Your task to perform on an android device: Open calendar and show me the first week of next month Image 0: 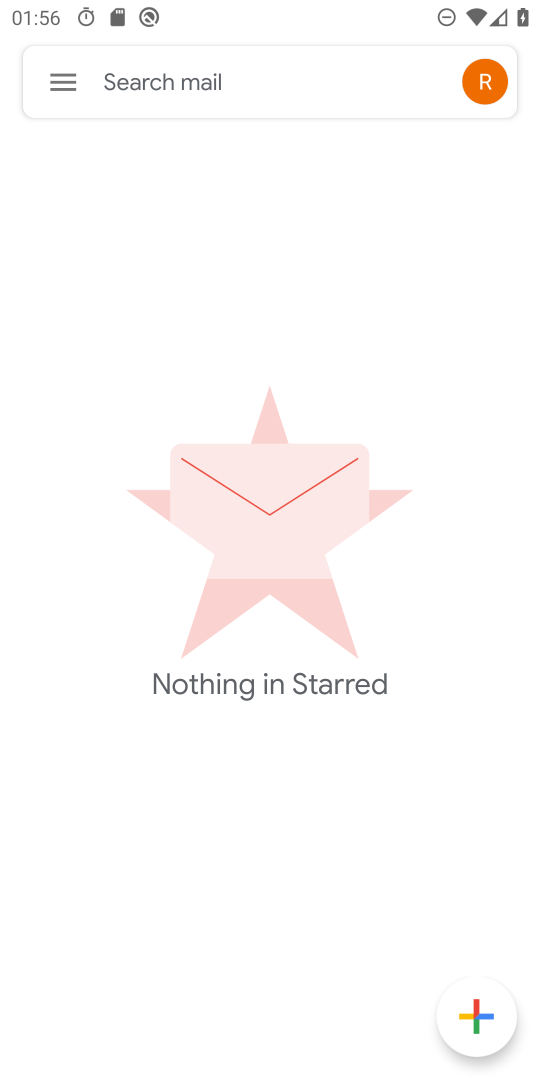
Step 0: press home button
Your task to perform on an android device: Open calendar and show me the first week of next month Image 1: 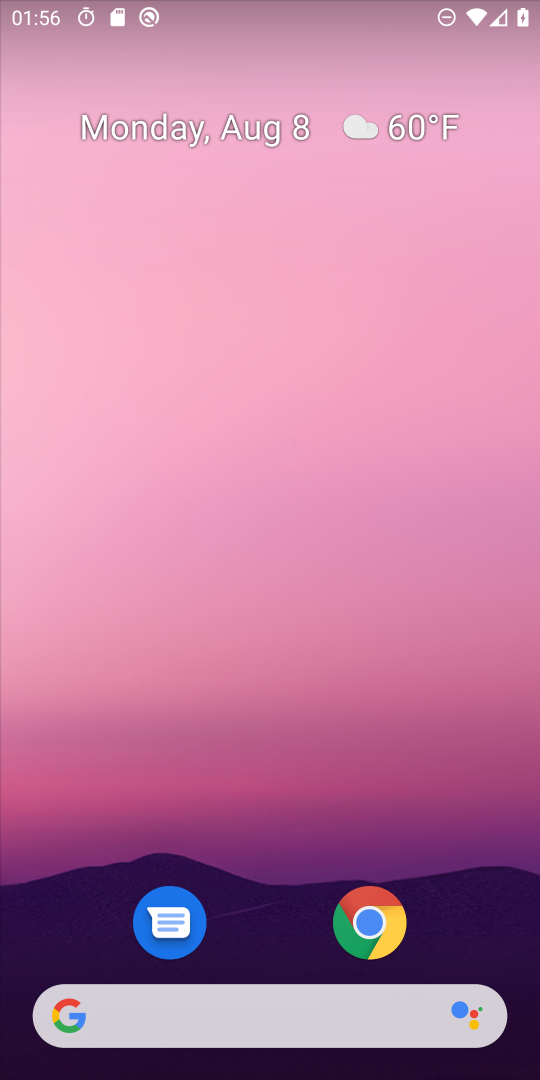
Step 1: drag from (246, 735) to (274, 0)
Your task to perform on an android device: Open calendar and show me the first week of next month Image 2: 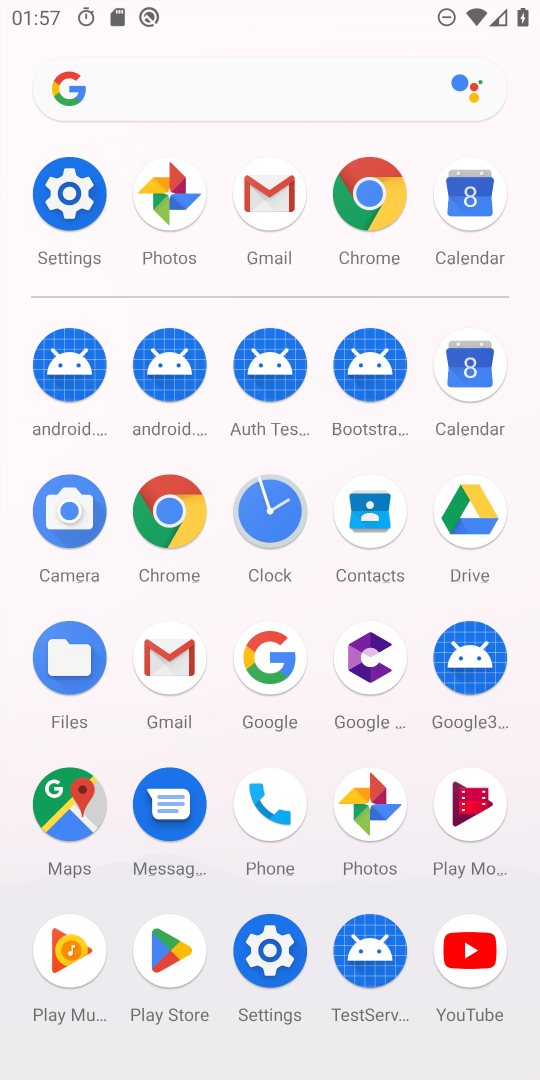
Step 2: click (472, 371)
Your task to perform on an android device: Open calendar and show me the first week of next month Image 3: 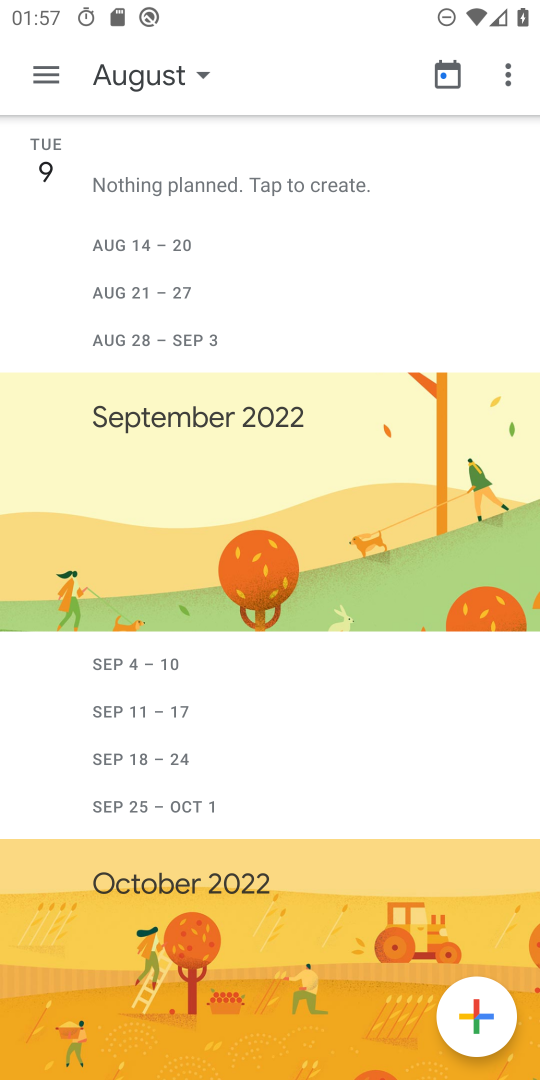
Step 3: click (149, 71)
Your task to perform on an android device: Open calendar and show me the first week of next month Image 4: 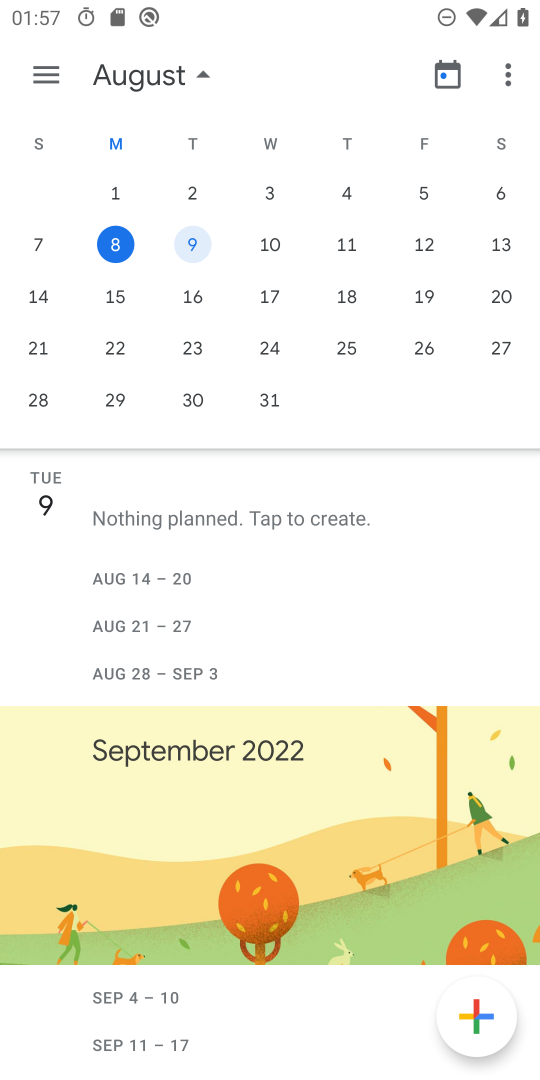
Step 4: drag from (503, 257) to (68, 273)
Your task to perform on an android device: Open calendar and show me the first week of next month Image 5: 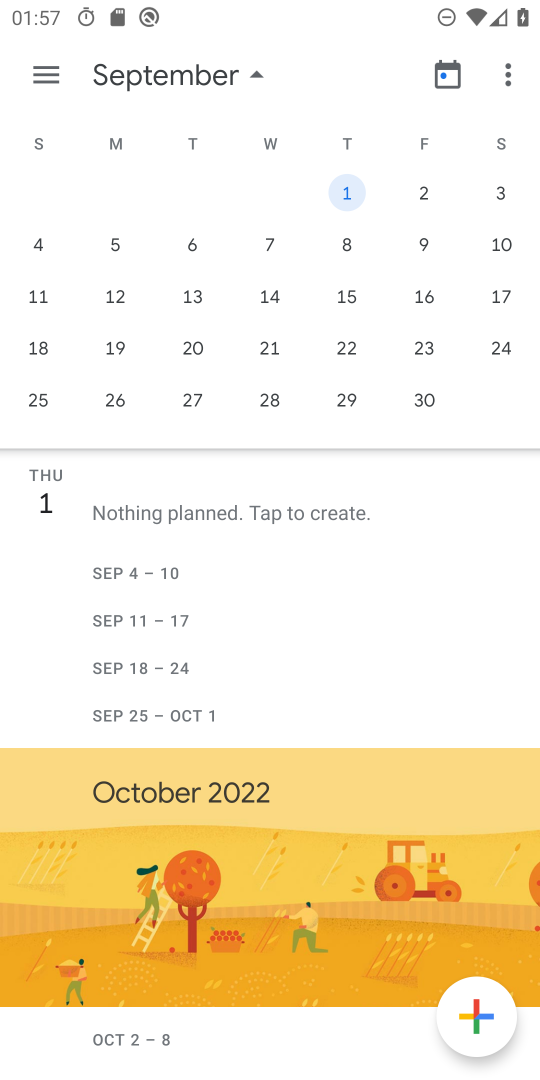
Step 5: click (195, 238)
Your task to perform on an android device: Open calendar and show me the first week of next month Image 6: 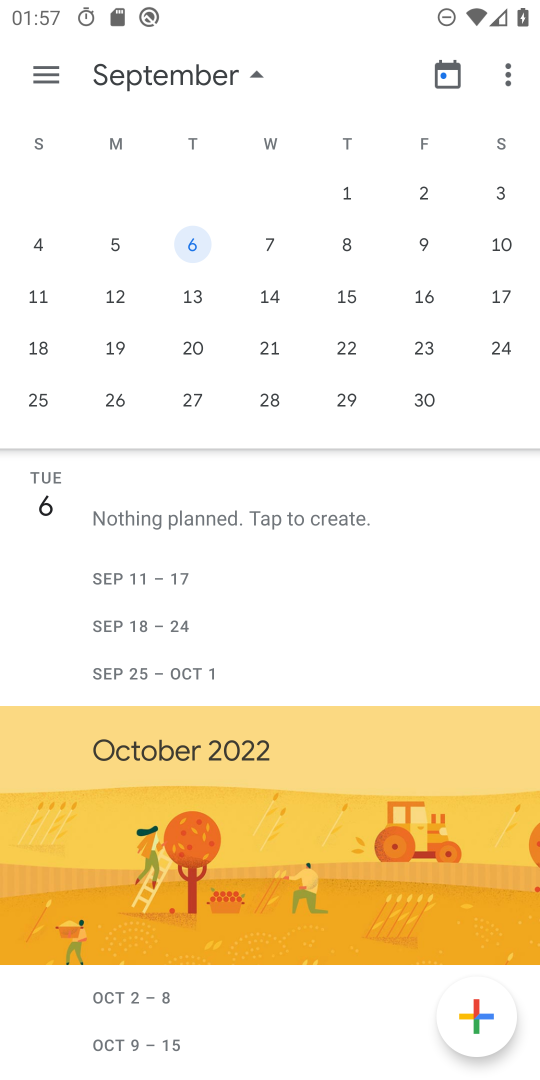
Step 6: click (48, 71)
Your task to perform on an android device: Open calendar and show me the first week of next month Image 7: 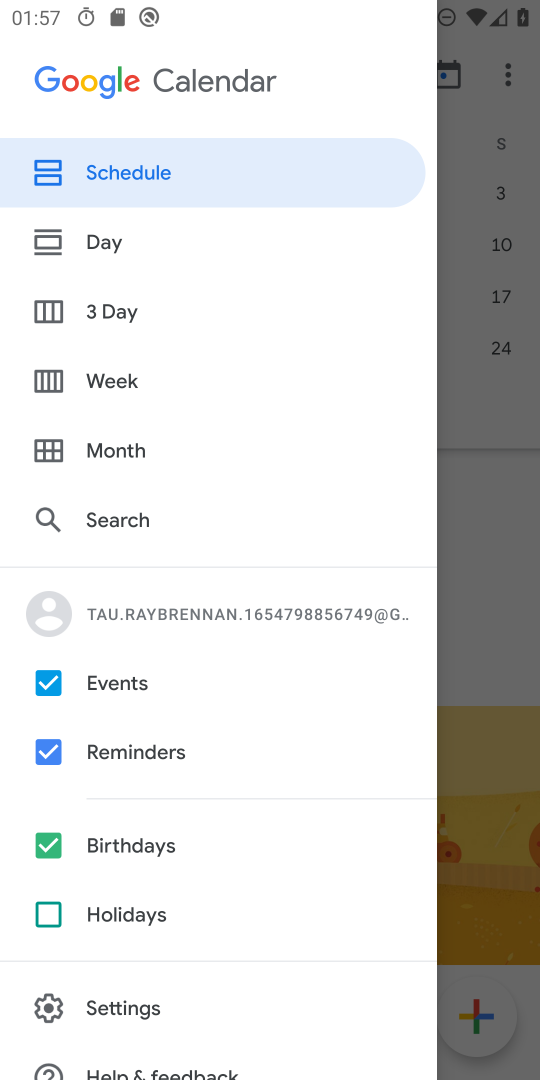
Step 7: click (120, 373)
Your task to perform on an android device: Open calendar and show me the first week of next month Image 8: 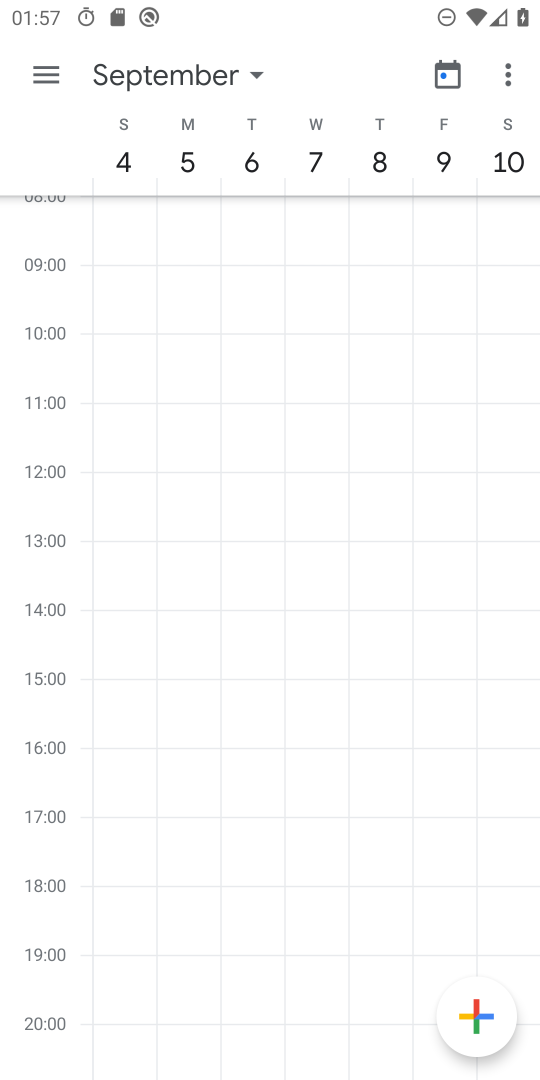
Step 8: task complete